Your task to perform on an android device: Go to Google Image 0: 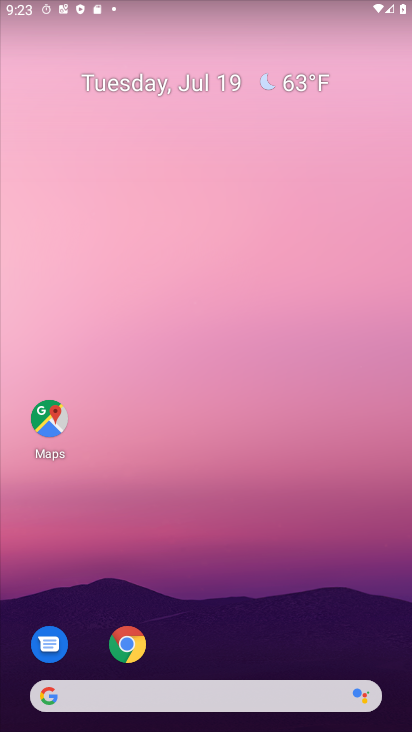
Step 0: drag from (271, 536) to (216, 144)
Your task to perform on an android device: Go to Google Image 1: 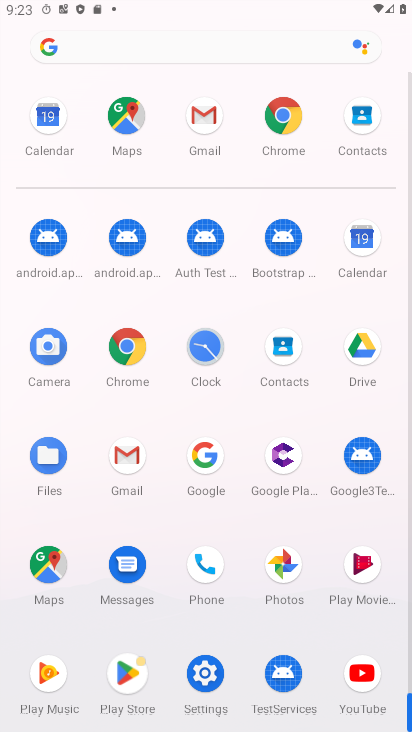
Step 1: click (208, 469)
Your task to perform on an android device: Go to Google Image 2: 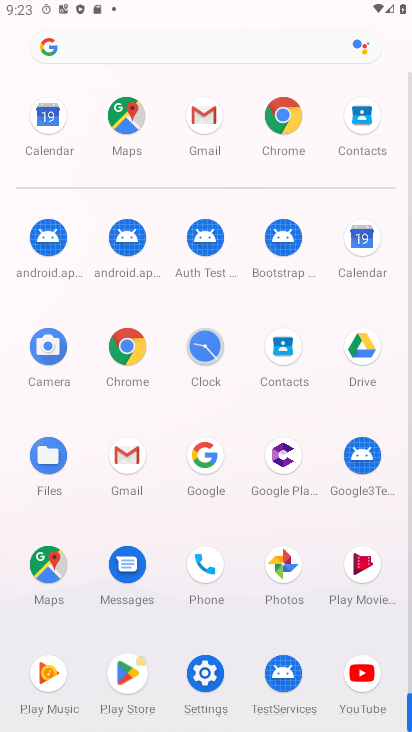
Step 2: click (210, 464)
Your task to perform on an android device: Go to Google Image 3: 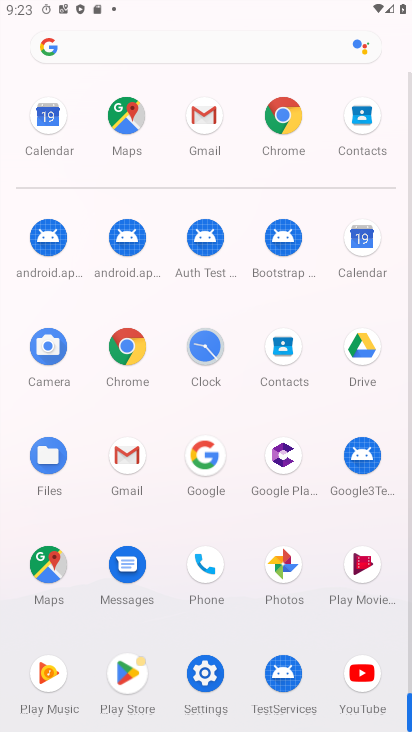
Step 3: click (211, 463)
Your task to perform on an android device: Go to Google Image 4: 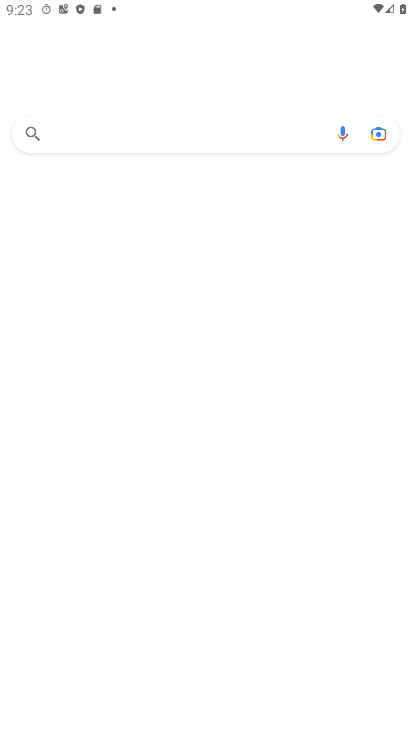
Step 4: click (221, 456)
Your task to perform on an android device: Go to Google Image 5: 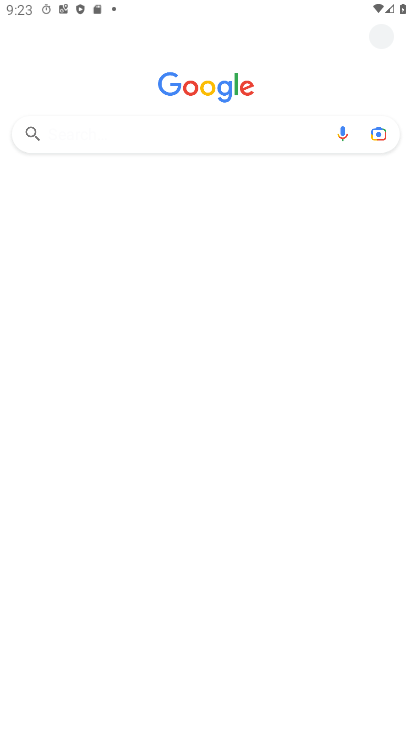
Step 5: click (221, 456)
Your task to perform on an android device: Go to Google Image 6: 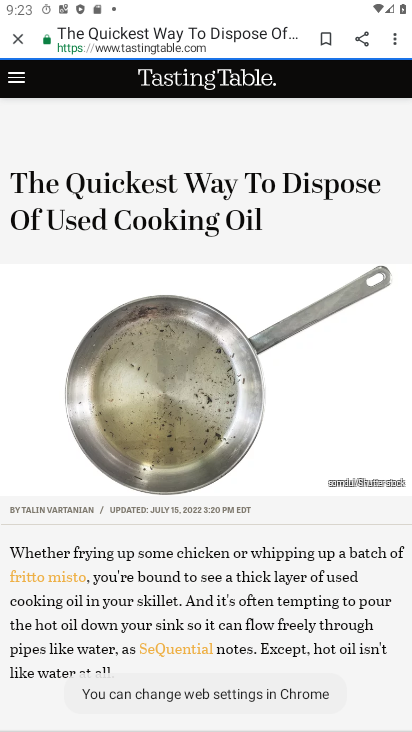
Step 6: task complete